Your task to perform on an android device: add a contact Image 0: 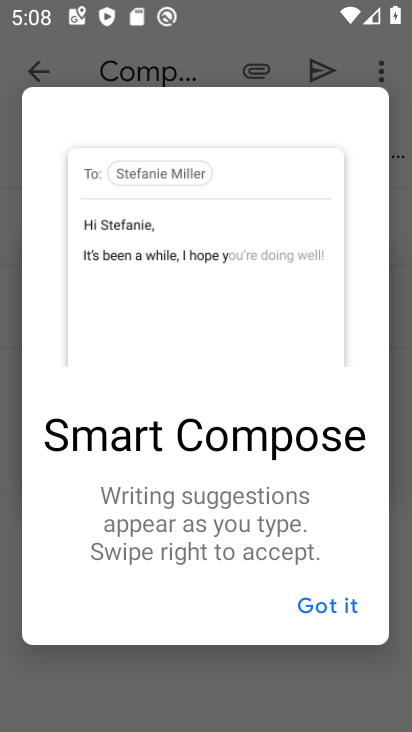
Step 0: press back button
Your task to perform on an android device: add a contact Image 1: 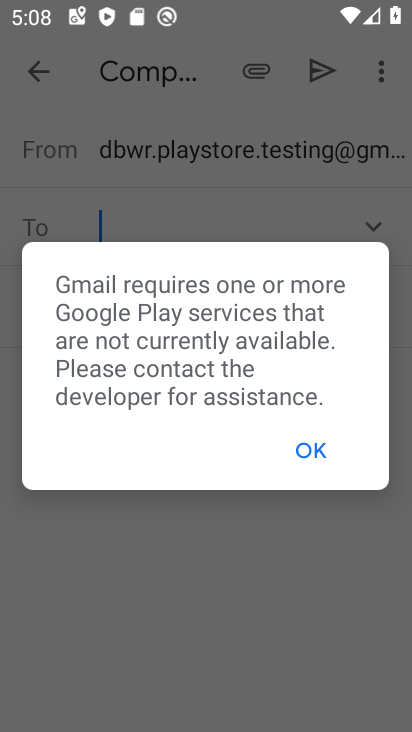
Step 1: press home button
Your task to perform on an android device: add a contact Image 2: 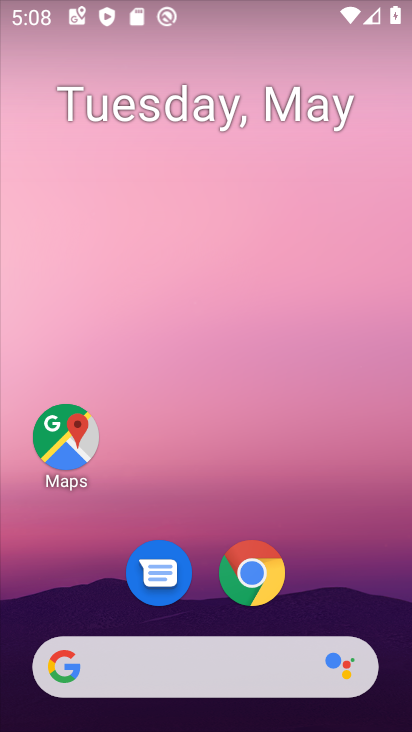
Step 2: drag from (177, 617) to (231, 88)
Your task to perform on an android device: add a contact Image 3: 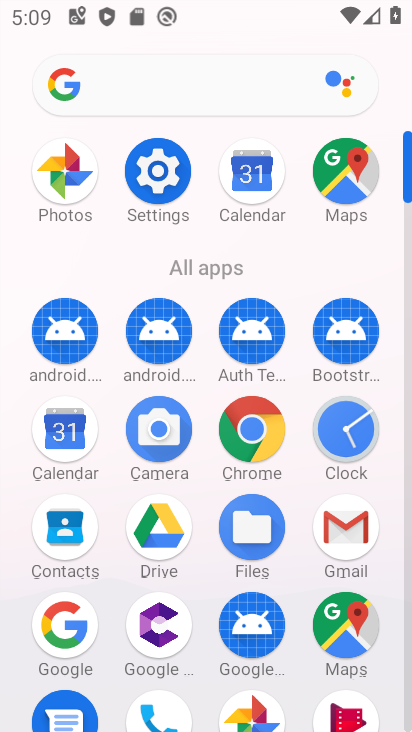
Step 3: click (55, 521)
Your task to perform on an android device: add a contact Image 4: 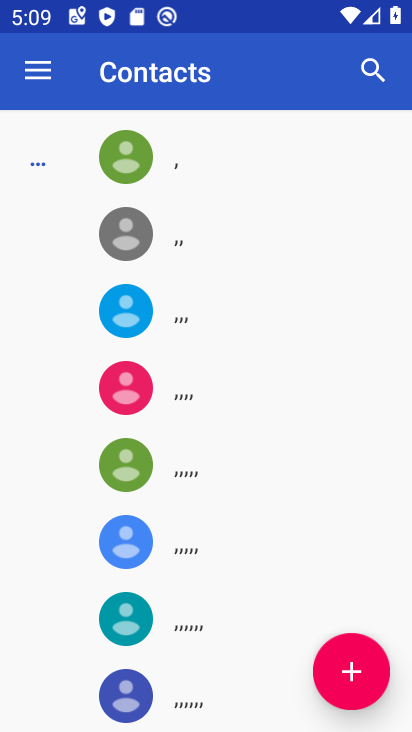
Step 4: click (329, 651)
Your task to perform on an android device: add a contact Image 5: 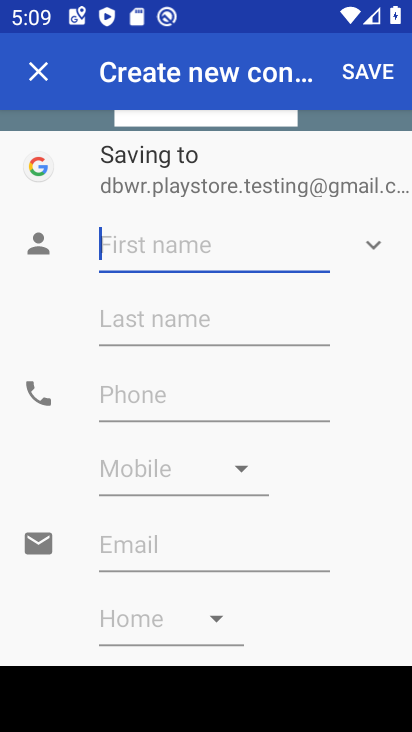
Step 5: click (157, 230)
Your task to perform on an android device: add a contact Image 6: 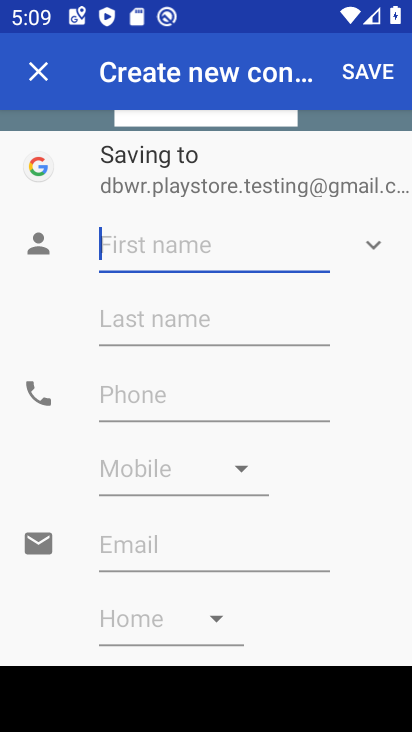
Step 6: type "gvgc"
Your task to perform on an android device: add a contact Image 7: 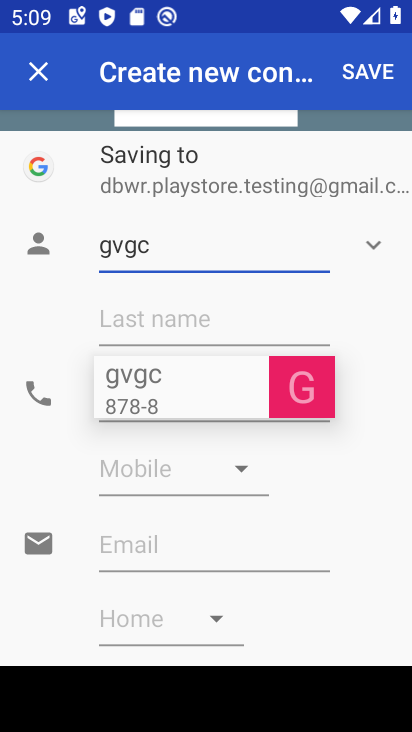
Step 7: click (138, 389)
Your task to perform on an android device: add a contact Image 8: 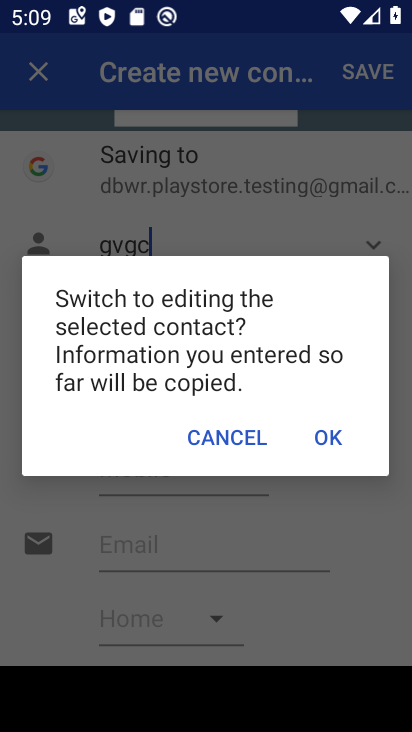
Step 8: click (324, 436)
Your task to perform on an android device: add a contact Image 9: 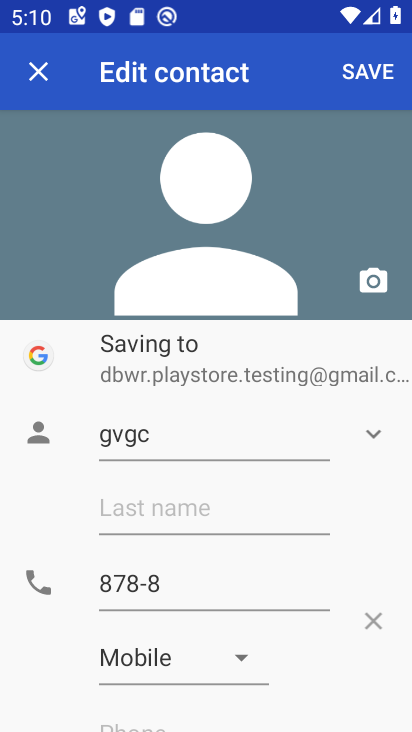
Step 9: click (375, 68)
Your task to perform on an android device: add a contact Image 10: 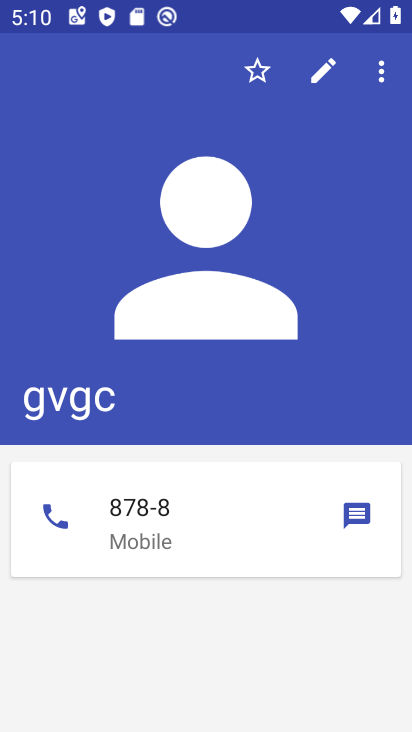
Step 10: task complete